Your task to perform on an android device: What's on my calendar tomorrow? Image 0: 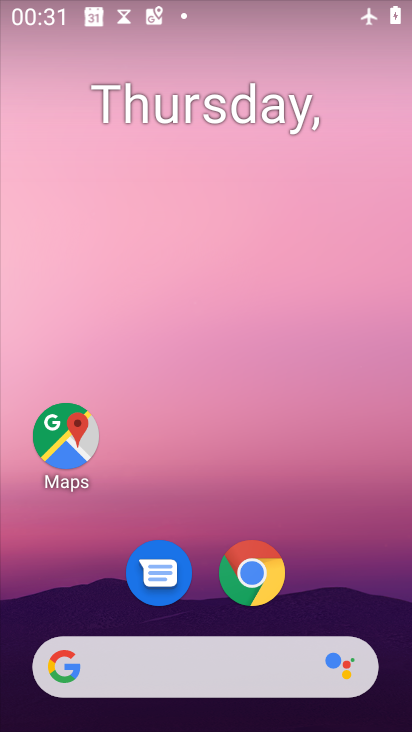
Step 0: drag from (315, 347) to (310, 293)
Your task to perform on an android device: What's on my calendar tomorrow? Image 1: 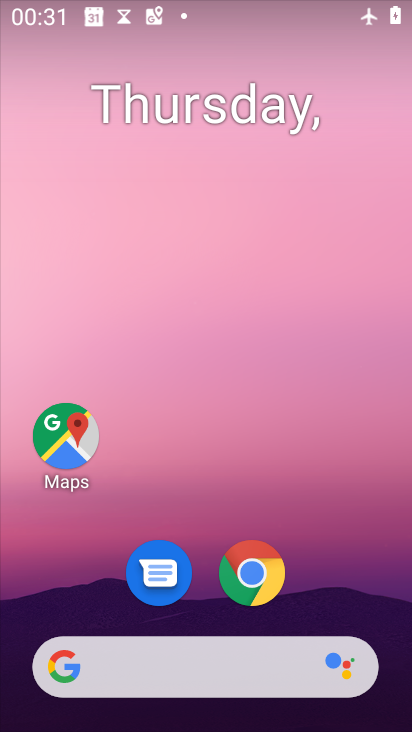
Step 1: drag from (308, 585) to (315, 294)
Your task to perform on an android device: What's on my calendar tomorrow? Image 2: 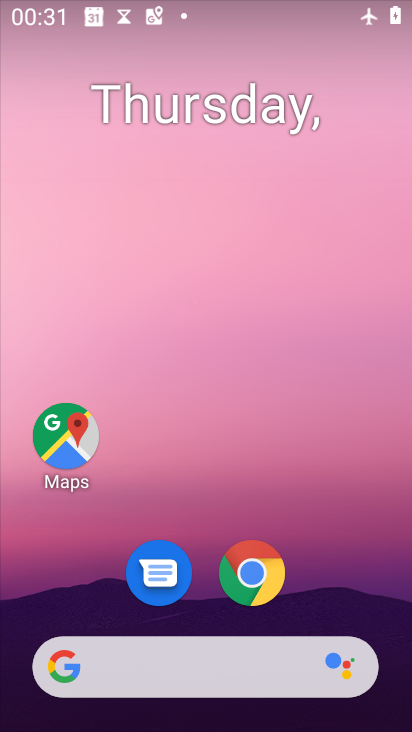
Step 2: drag from (335, 444) to (351, 294)
Your task to perform on an android device: What's on my calendar tomorrow? Image 3: 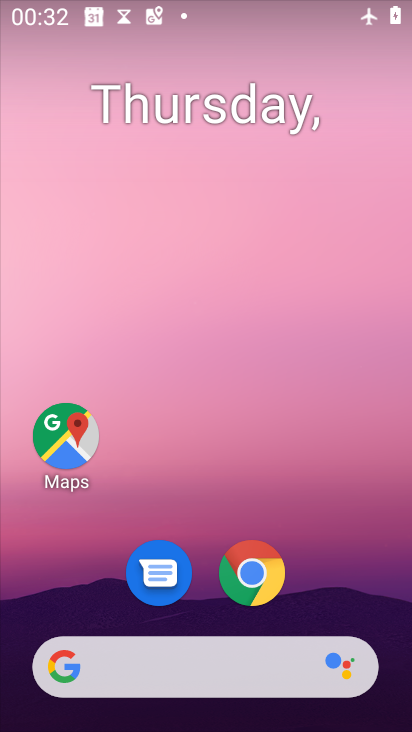
Step 3: drag from (319, 505) to (292, 260)
Your task to perform on an android device: What's on my calendar tomorrow? Image 4: 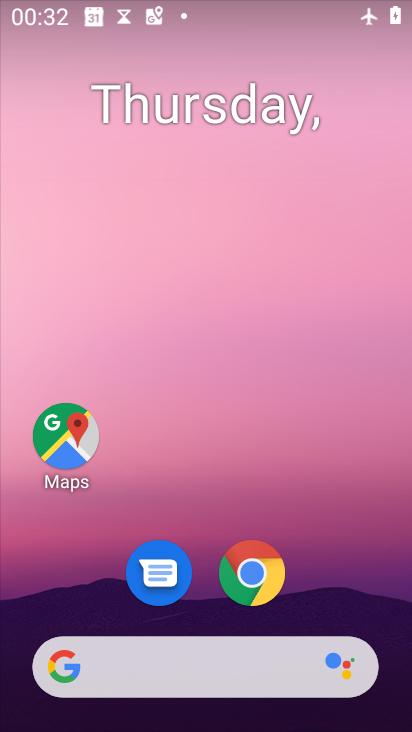
Step 4: drag from (319, 478) to (343, 173)
Your task to perform on an android device: What's on my calendar tomorrow? Image 5: 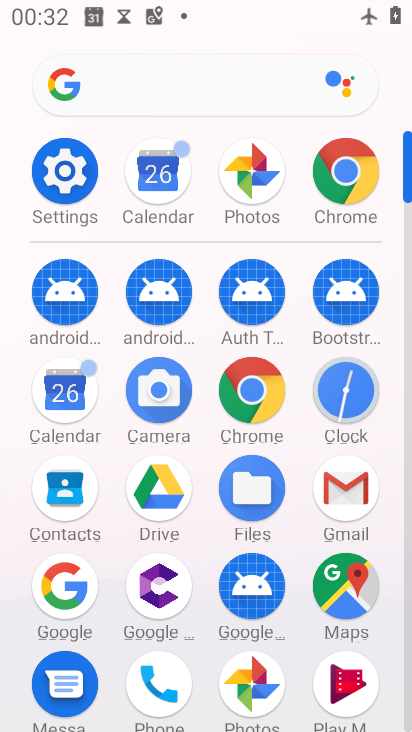
Step 5: click (71, 387)
Your task to perform on an android device: What's on my calendar tomorrow? Image 6: 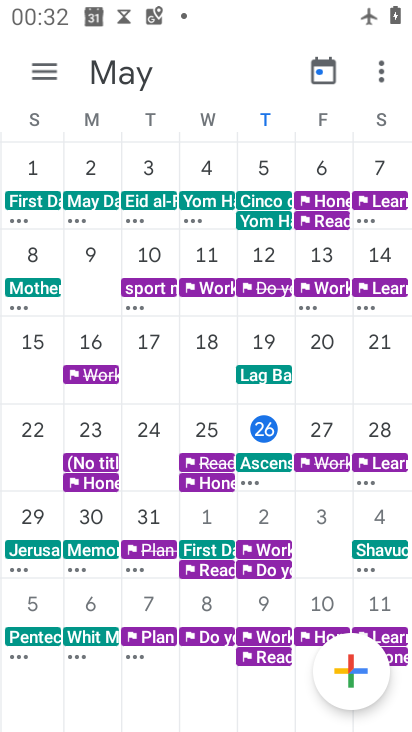
Step 6: click (321, 429)
Your task to perform on an android device: What's on my calendar tomorrow? Image 7: 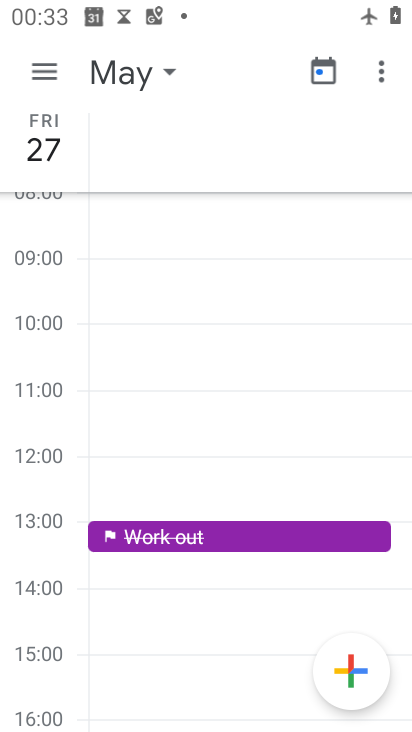
Step 7: task complete